Your task to perform on an android device: change timer sound Image 0: 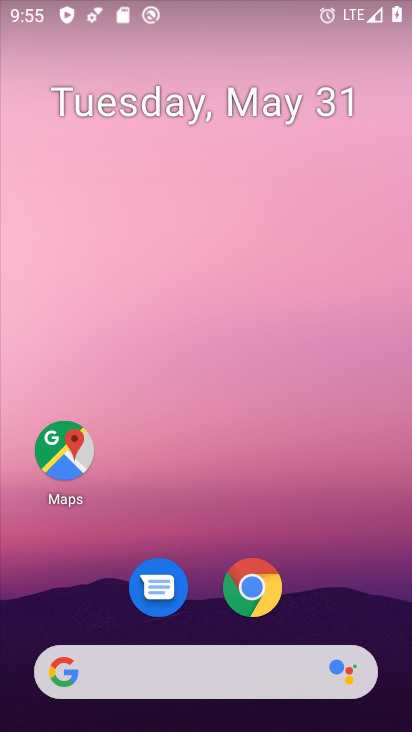
Step 0: drag from (342, 604) to (368, 175)
Your task to perform on an android device: change timer sound Image 1: 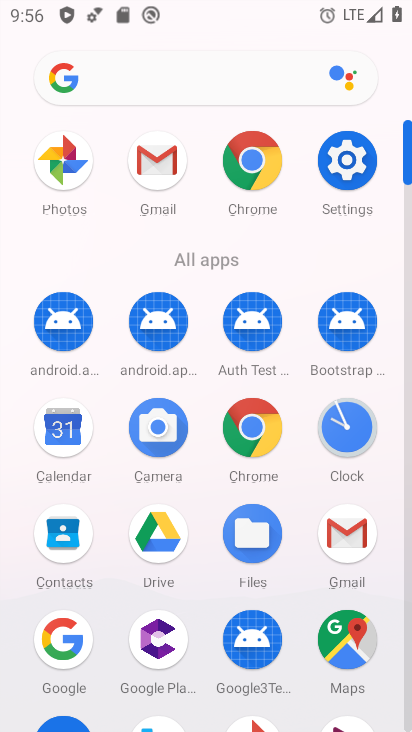
Step 1: click (351, 433)
Your task to perform on an android device: change timer sound Image 2: 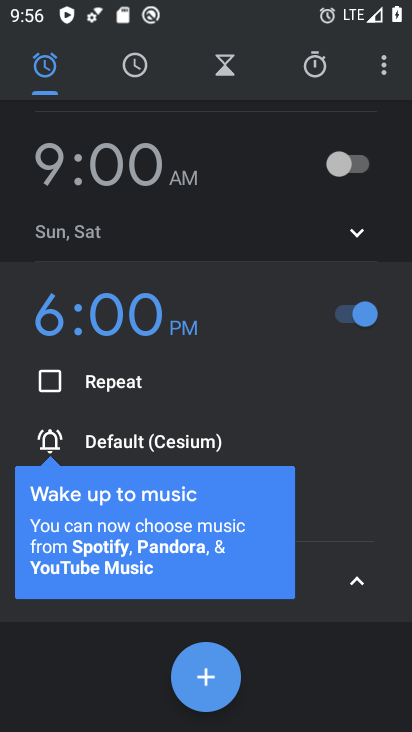
Step 2: click (381, 76)
Your task to perform on an android device: change timer sound Image 3: 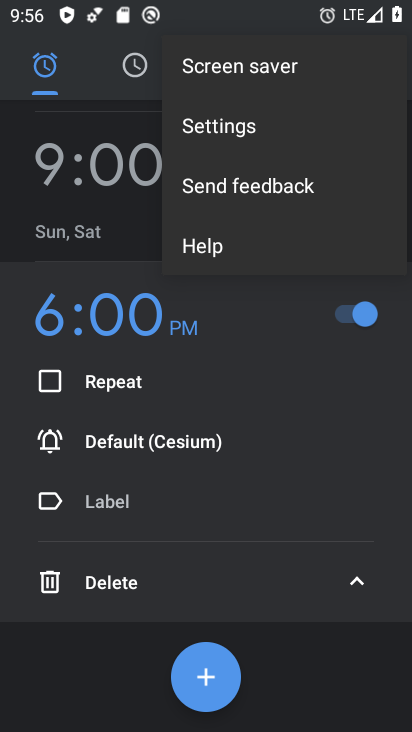
Step 3: click (298, 135)
Your task to perform on an android device: change timer sound Image 4: 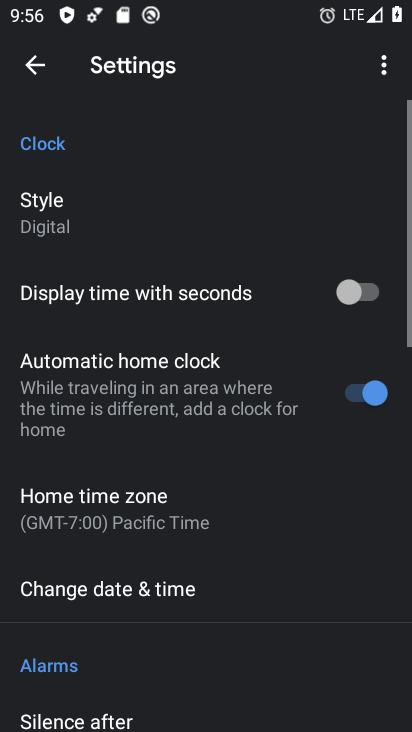
Step 4: drag from (293, 332) to (296, 242)
Your task to perform on an android device: change timer sound Image 5: 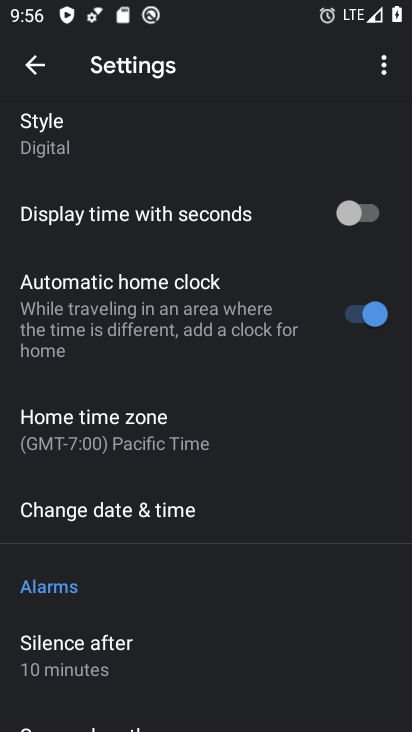
Step 5: drag from (290, 418) to (308, 312)
Your task to perform on an android device: change timer sound Image 6: 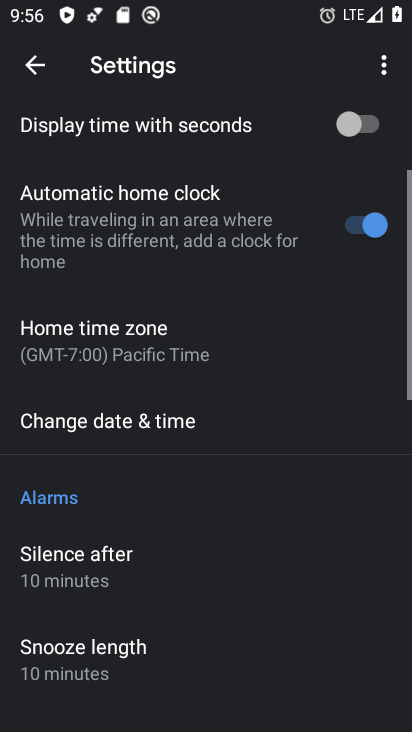
Step 6: drag from (284, 404) to (288, 340)
Your task to perform on an android device: change timer sound Image 7: 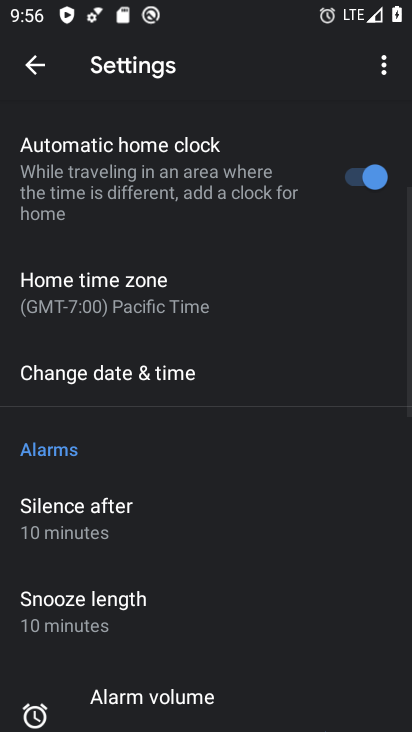
Step 7: drag from (267, 450) to (287, 350)
Your task to perform on an android device: change timer sound Image 8: 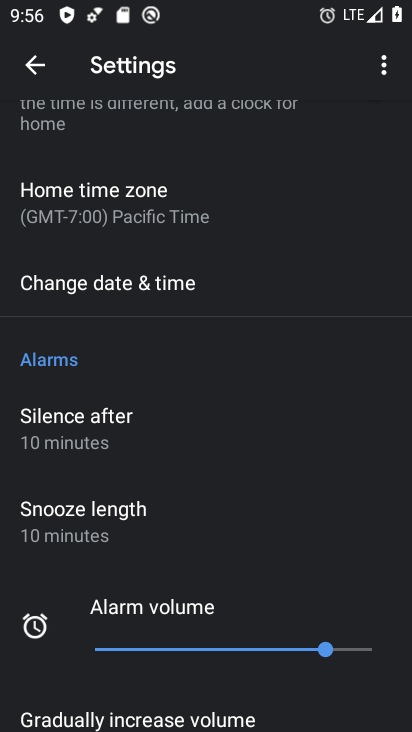
Step 8: drag from (284, 456) to (296, 377)
Your task to perform on an android device: change timer sound Image 9: 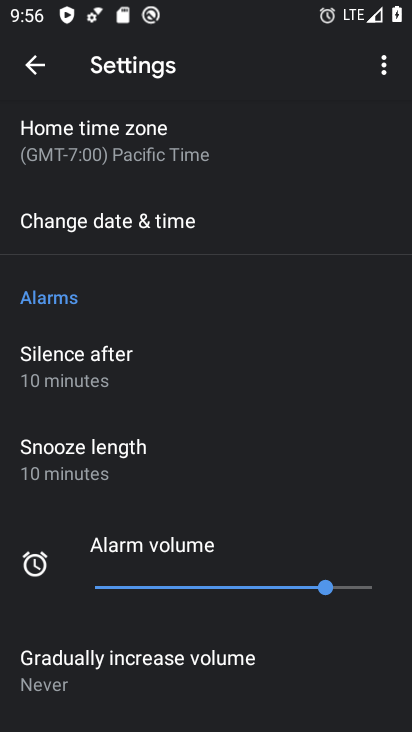
Step 9: drag from (279, 453) to (293, 371)
Your task to perform on an android device: change timer sound Image 10: 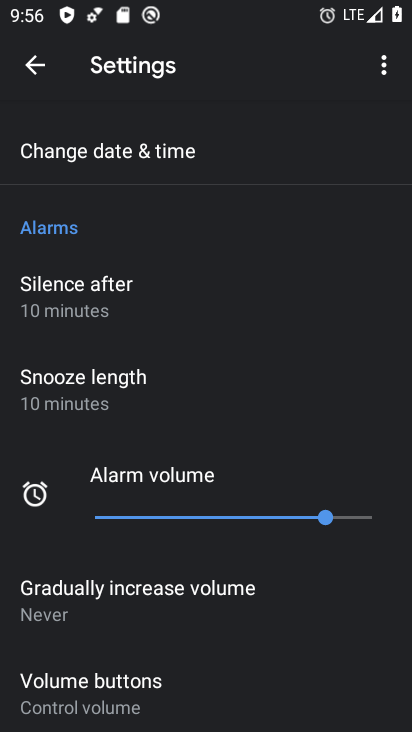
Step 10: drag from (291, 541) to (305, 423)
Your task to perform on an android device: change timer sound Image 11: 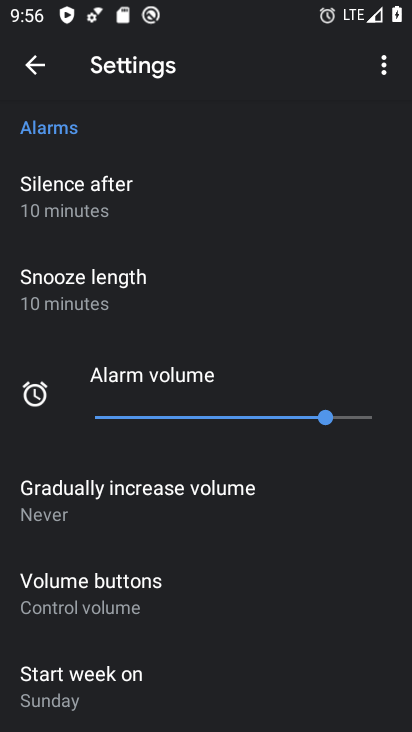
Step 11: drag from (290, 540) to (304, 419)
Your task to perform on an android device: change timer sound Image 12: 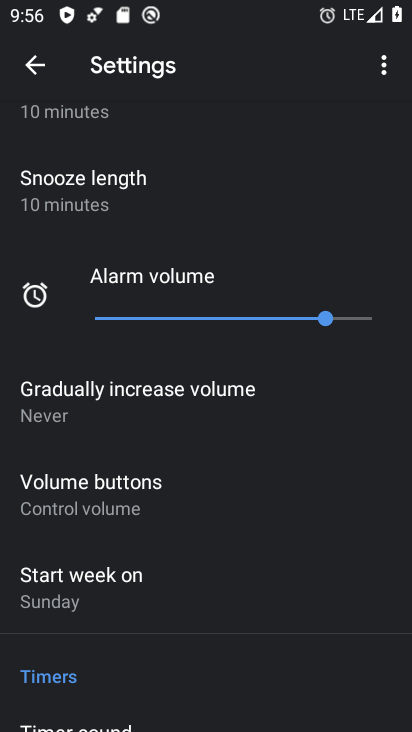
Step 12: drag from (287, 545) to (298, 454)
Your task to perform on an android device: change timer sound Image 13: 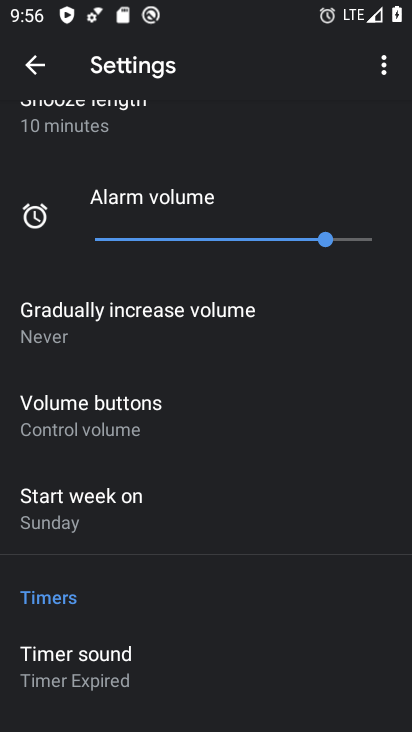
Step 13: drag from (280, 541) to (299, 416)
Your task to perform on an android device: change timer sound Image 14: 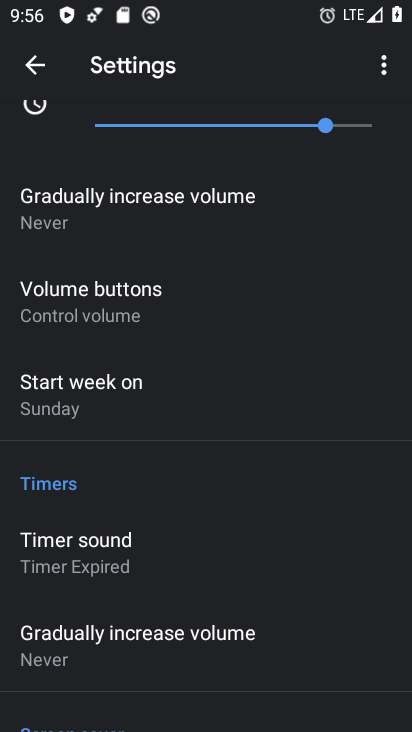
Step 14: drag from (290, 528) to (300, 260)
Your task to perform on an android device: change timer sound Image 15: 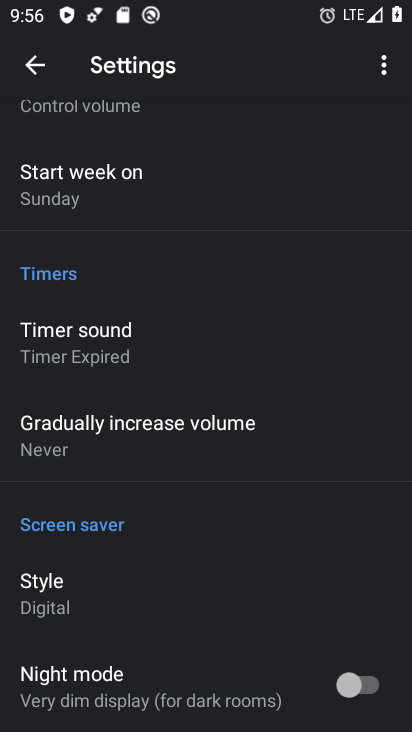
Step 15: click (248, 345)
Your task to perform on an android device: change timer sound Image 16: 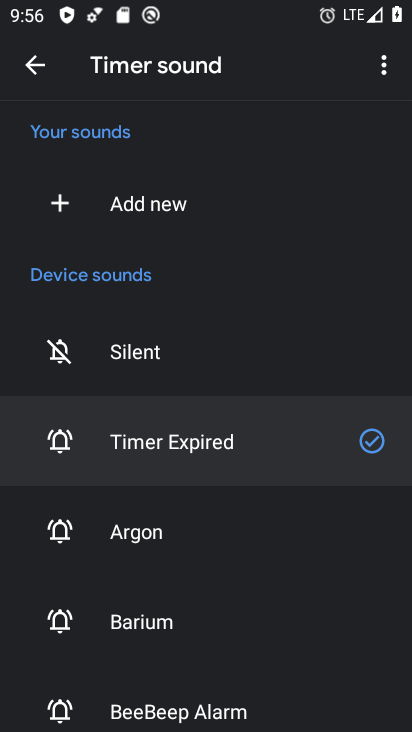
Step 16: click (216, 549)
Your task to perform on an android device: change timer sound Image 17: 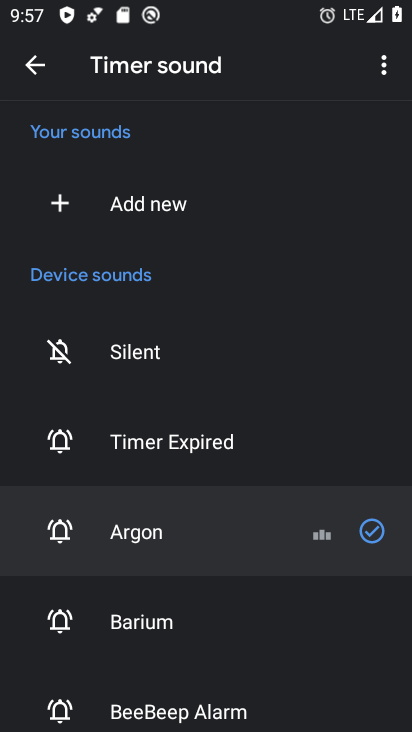
Step 17: task complete